Your task to perform on an android device: Open Youtube and go to the subscriptions tab Image 0: 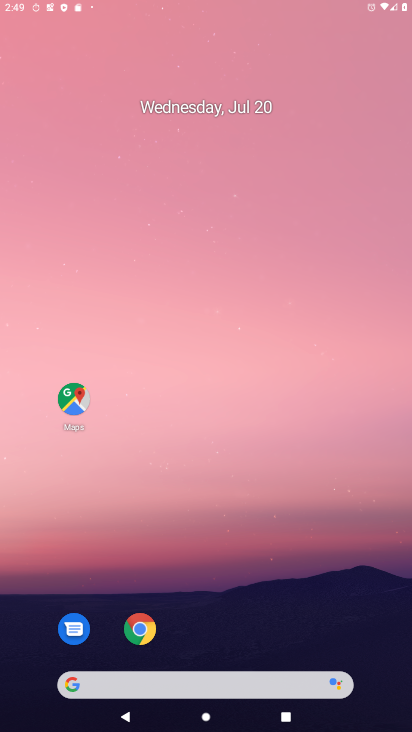
Step 0: press home button
Your task to perform on an android device: Open Youtube and go to the subscriptions tab Image 1: 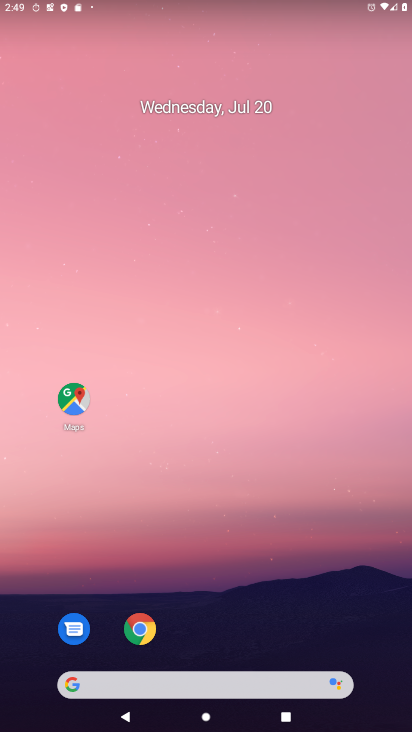
Step 1: drag from (212, 642) to (194, 41)
Your task to perform on an android device: Open Youtube and go to the subscriptions tab Image 2: 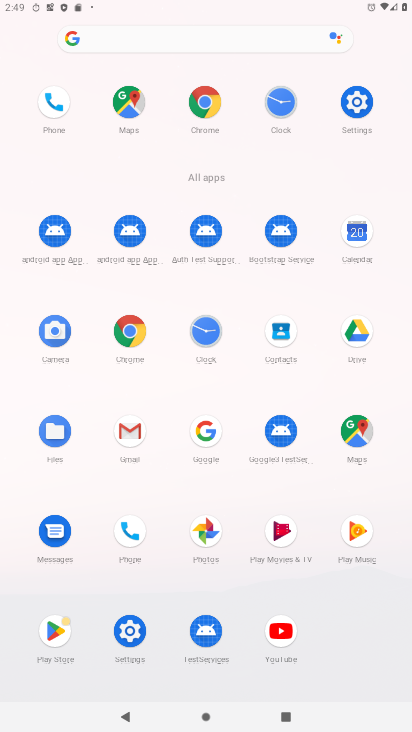
Step 2: click (277, 626)
Your task to perform on an android device: Open Youtube and go to the subscriptions tab Image 3: 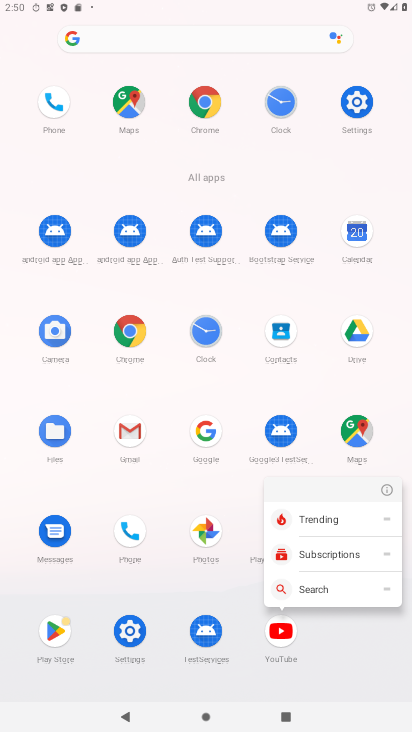
Step 3: click (277, 629)
Your task to perform on an android device: Open Youtube and go to the subscriptions tab Image 4: 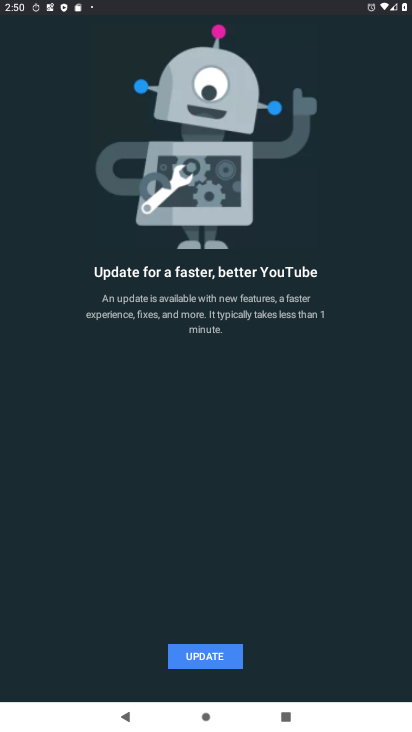
Step 4: click (204, 654)
Your task to perform on an android device: Open Youtube and go to the subscriptions tab Image 5: 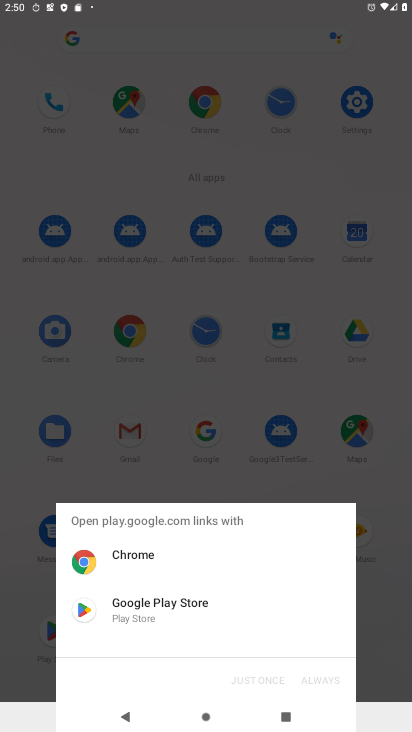
Step 5: click (132, 613)
Your task to perform on an android device: Open Youtube and go to the subscriptions tab Image 6: 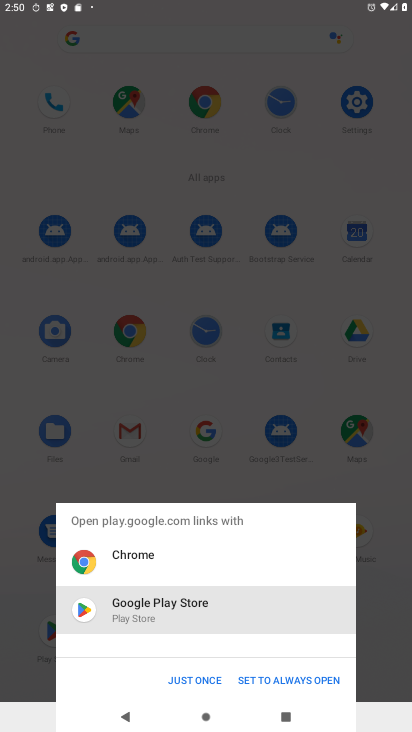
Step 6: click (191, 677)
Your task to perform on an android device: Open Youtube and go to the subscriptions tab Image 7: 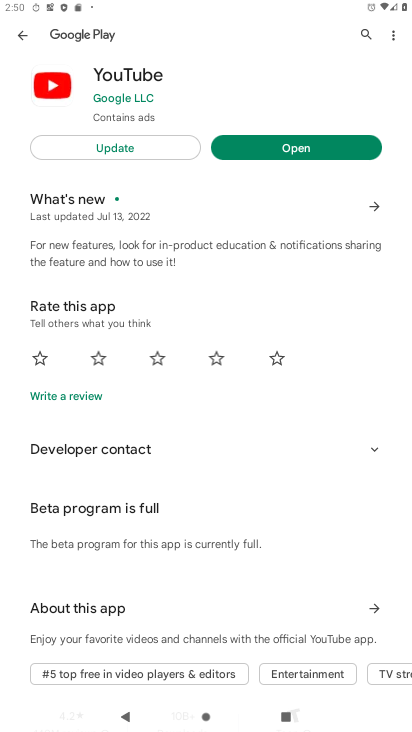
Step 7: click (116, 144)
Your task to perform on an android device: Open Youtube and go to the subscriptions tab Image 8: 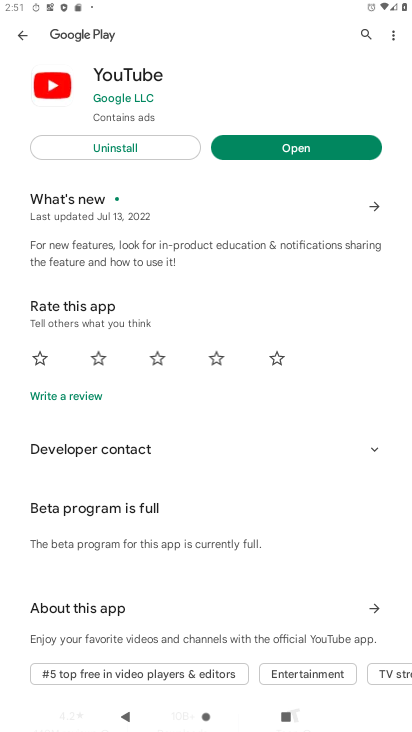
Step 8: click (303, 145)
Your task to perform on an android device: Open Youtube and go to the subscriptions tab Image 9: 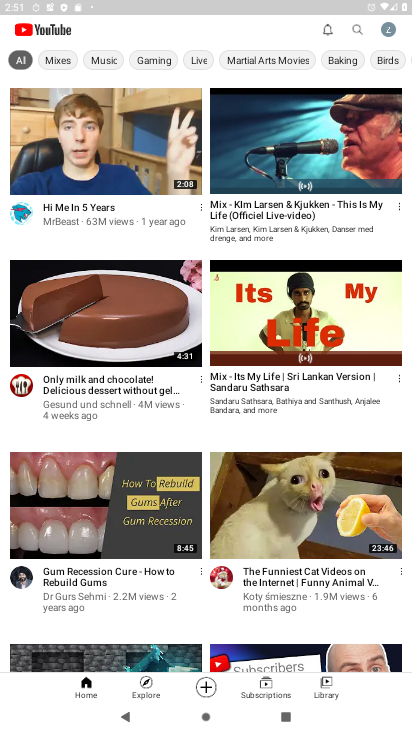
Step 9: click (261, 681)
Your task to perform on an android device: Open Youtube and go to the subscriptions tab Image 10: 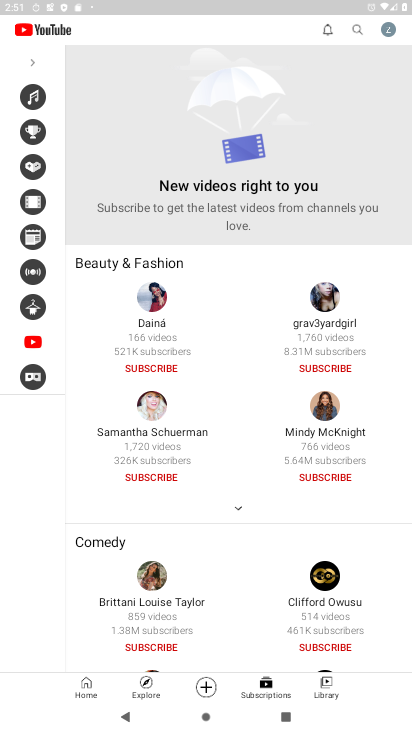
Step 10: task complete